Your task to perform on an android device: toggle translation in the chrome app Image 0: 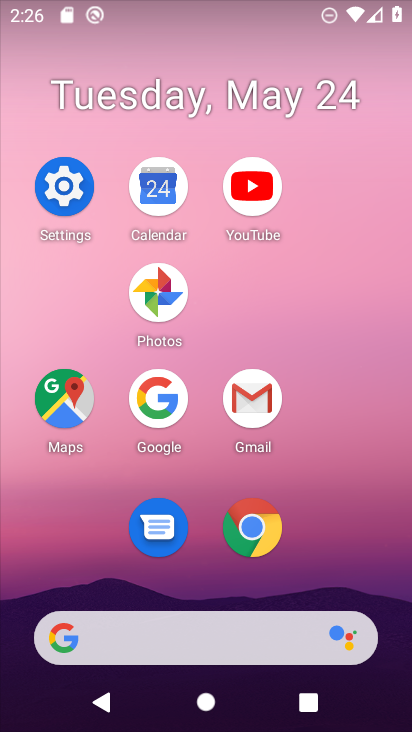
Step 0: click (223, 518)
Your task to perform on an android device: toggle translation in the chrome app Image 1: 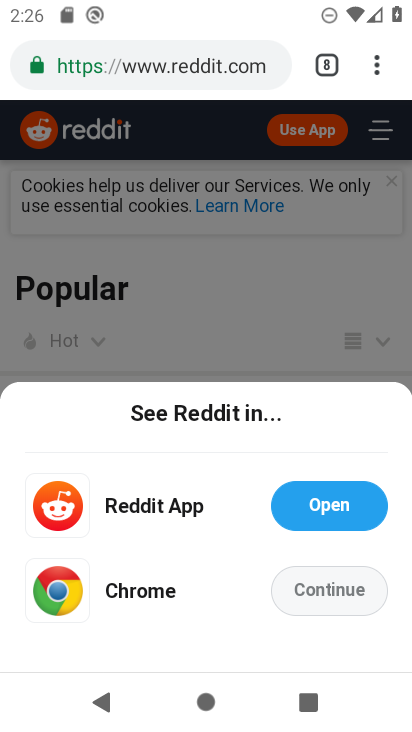
Step 1: click (371, 67)
Your task to perform on an android device: toggle translation in the chrome app Image 2: 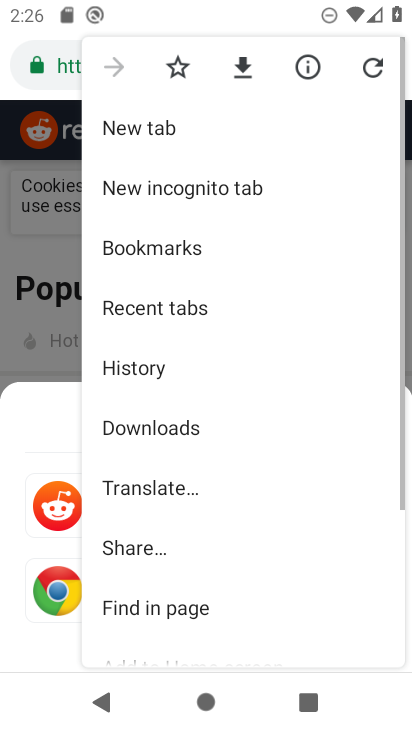
Step 2: drag from (261, 549) to (215, 204)
Your task to perform on an android device: toggle translation in the chrome app Image 3: 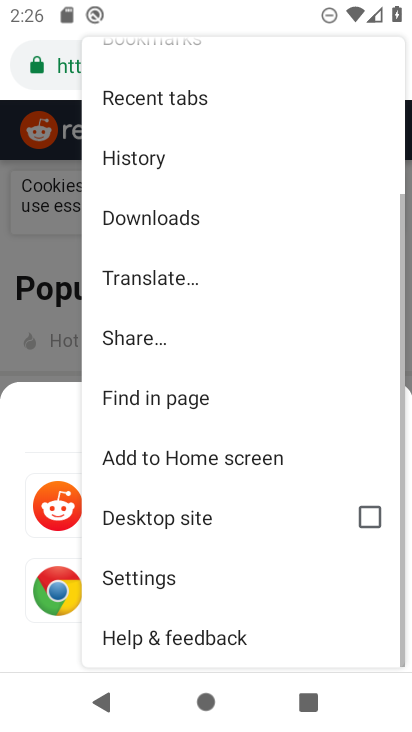
Step 3: click (265, 559)
Your task to perform on an android device: toggle translation in the chrome app Image 4: 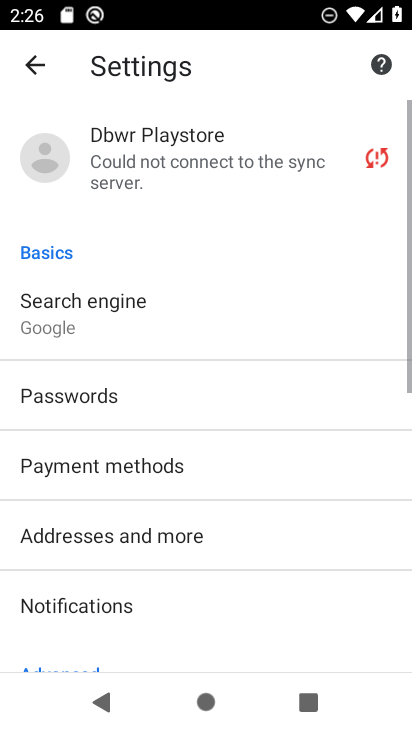
Step 4: drag from (264, 558) to (191, 186)
Your task to perform on an android device: toggle translation in the chrome app Image 5: 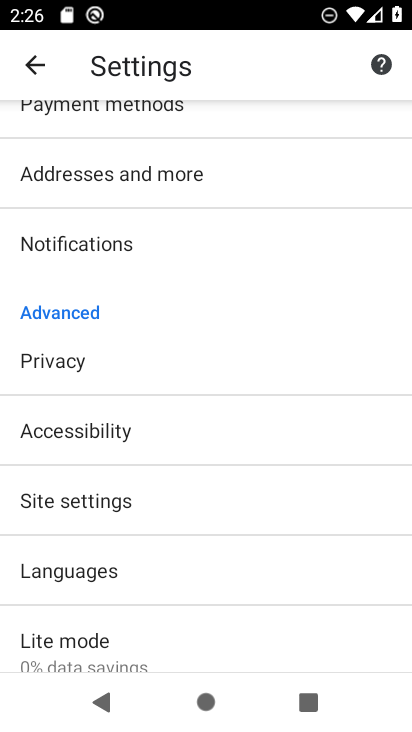
Step 5: drag from (241, 615) to (193, 274)
Your task to perform on an android device: toggle translation in the chrome app Image 6: 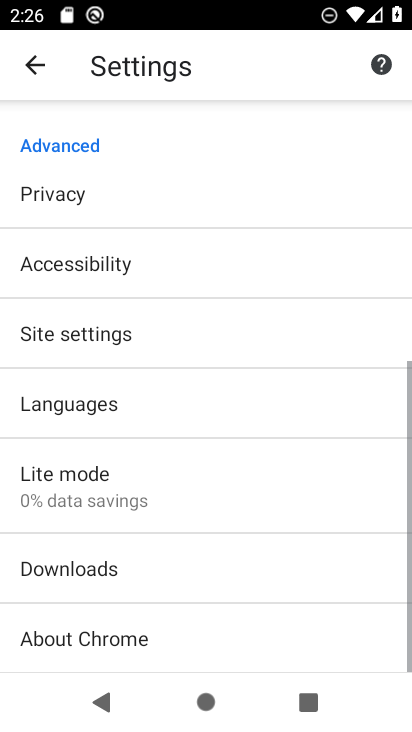
Step 6: click (191, 432)
Your task to perform on an android device: toggle translation in the chrome app Image 7: 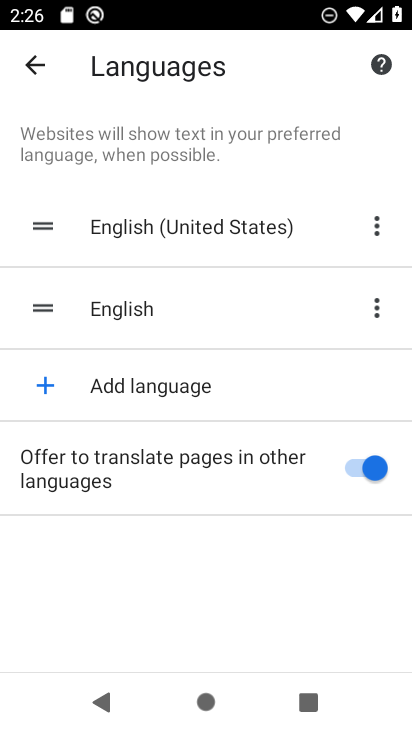
Step 7: click (341, 474)
Your task to perform on an android device: toggle translation in the chrome app Image 8: 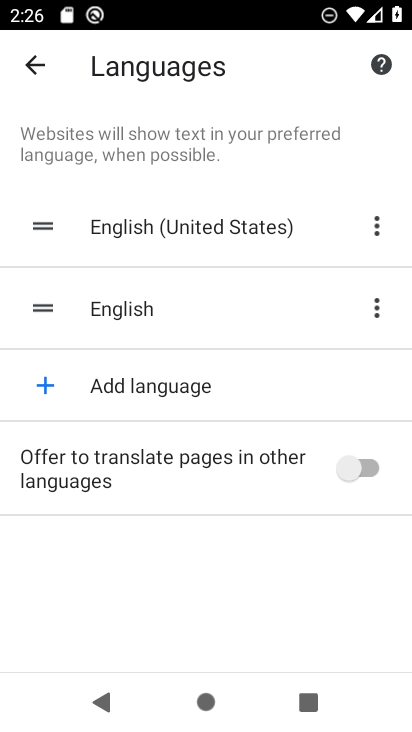
Step 8: task complete